Your task to perform on an android device: open device folders in google photos Image 0: 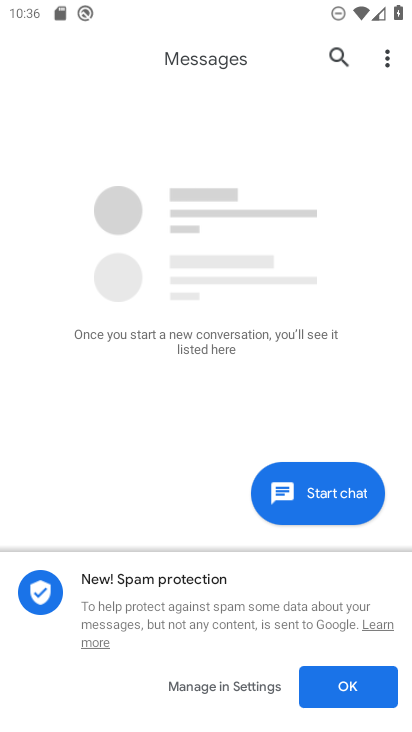
Step 0: press home button
Your task to perform on an android device: open device folders in google photos Image 1: 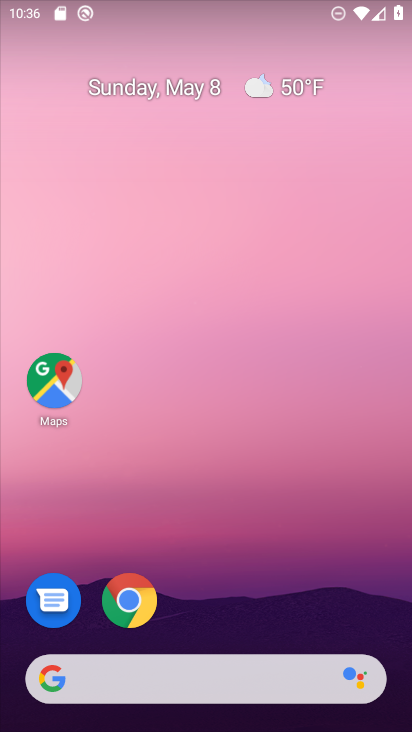
Step 1: drag from (219, 725) to (215, 242)
Your task to perform on an android device: open device folders in google photos Image 2: 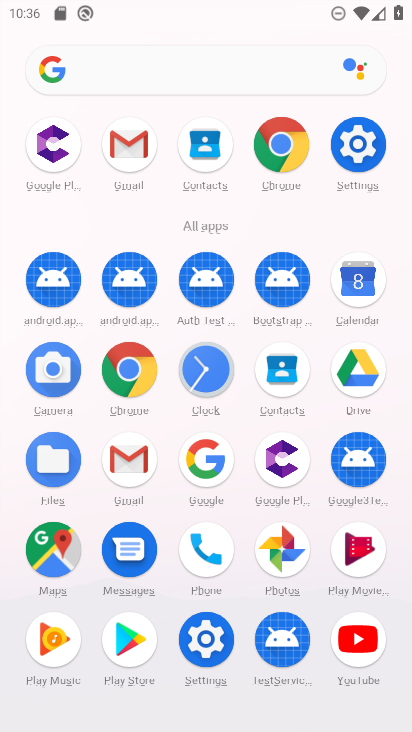
Step 2: click (290, 545)
Your task to perform on an android device: open device folders in google photos Image 3: 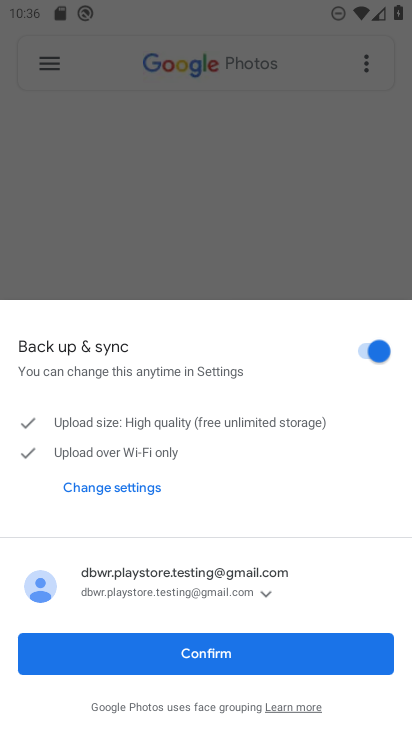
Step 3: click (204, 661)
Your task to perform on an android device: open device folders in google photos Image 4: 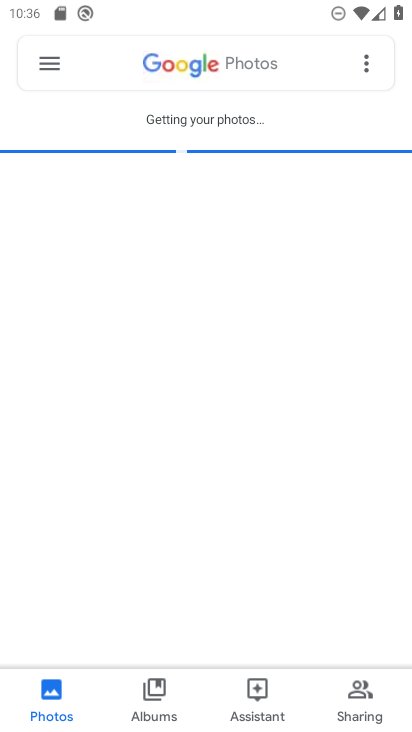
Step 4: click (49, 63)
Your task to perform on an android device: open device folders in google photos Image 5: 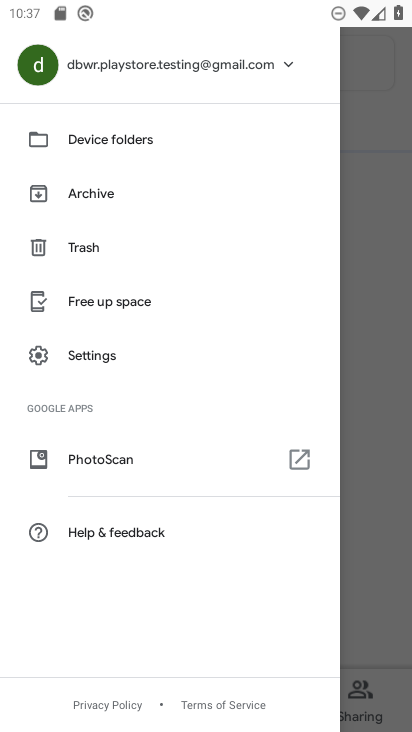
Step 5: click (99, 130)
Your task to perform on an android device: open device folders in google photos Image 6: 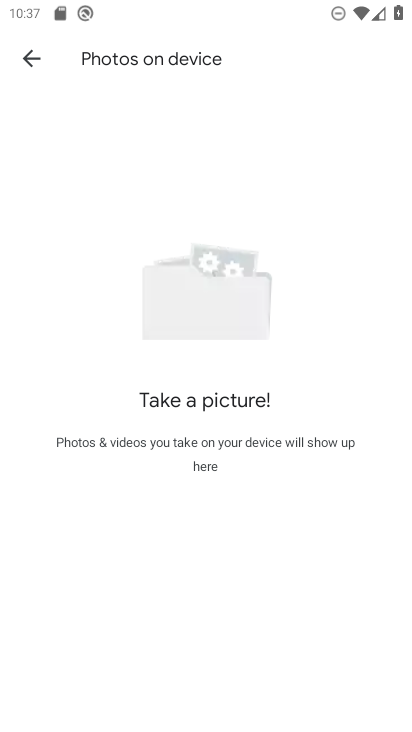
Step 6: task complete